Your task to perform on an android device: allow cookies in the chrome app Image 0: 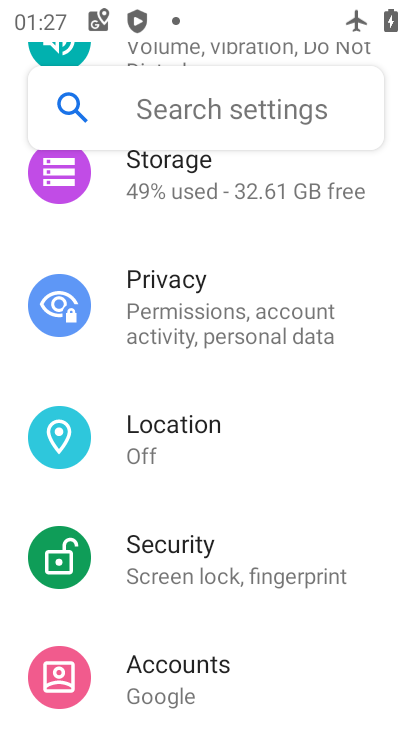
Step 0: press home button
Your task to perform on an android device: allow cookies in the chrome app Image 1: 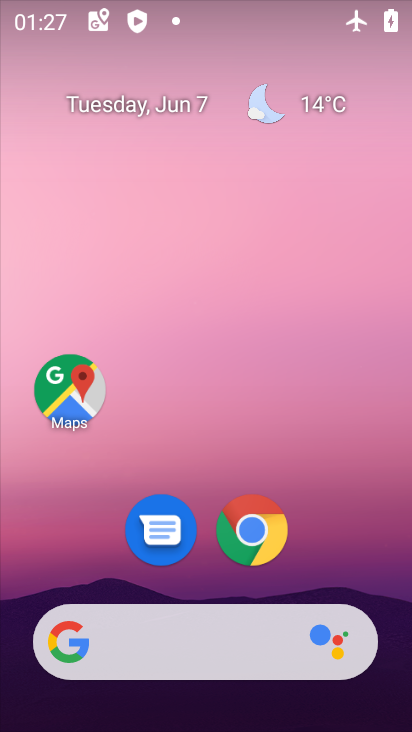
Step 1: click (262, 529)
Your task to perform on an android device: allow cookies in the chrome app Image 2: 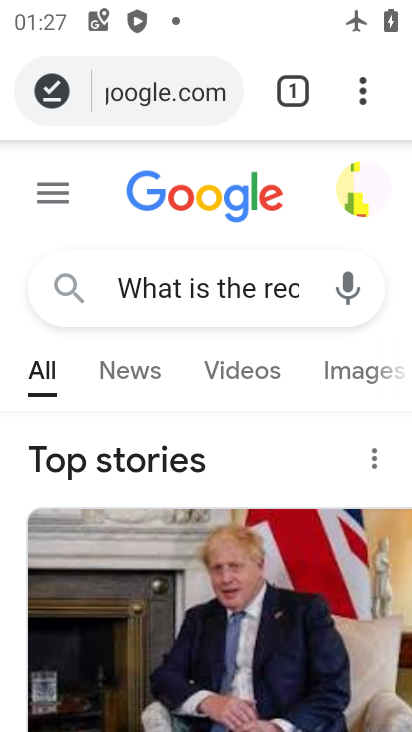
Step 2: click (354, 87)
Your task to perform on an android device: allow cookies in the chrome app Image 3: 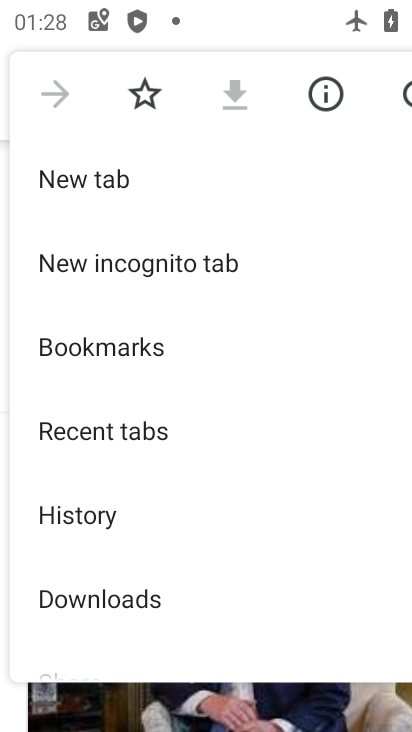
Step 3: drag from (225, 647) to (226, 292)
Your task to perform on an android device: allow cookies in the chrome app Image 4: 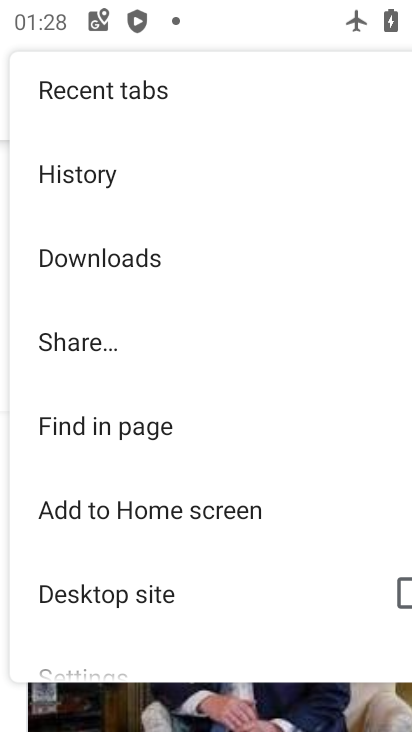
Step 4: drag from (139, 562) to (163, 257)
Your task to perform on an android device: allow cookies in the chrome app Image 5: 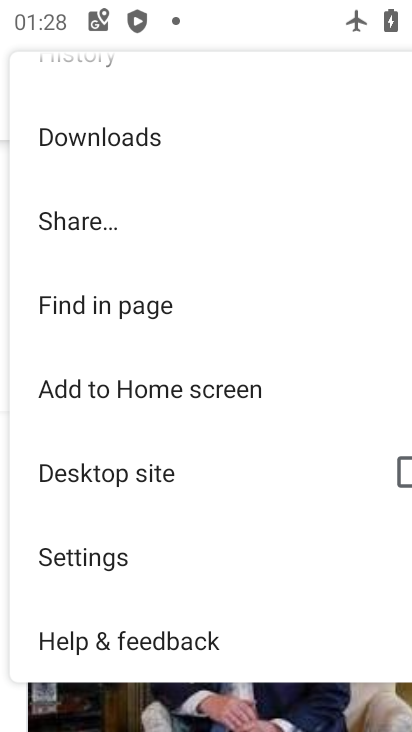
Step 5: click (117, 551)
Your task to perform on an android device: allow cookies in the chrome app Image 6: 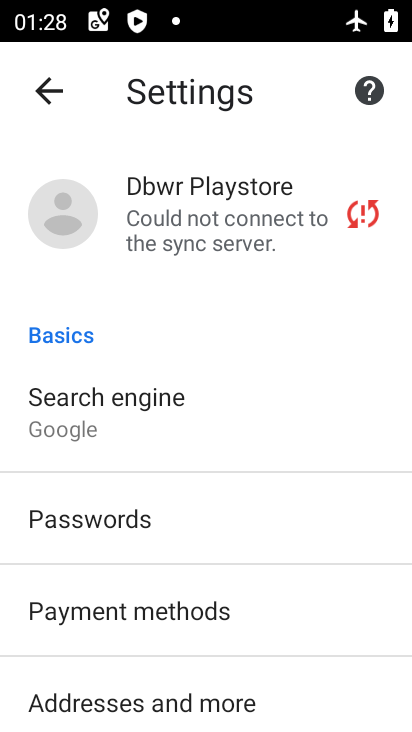
Step 6: drag from (205, 635) to (185, 308)
Your task to perform on an android device: allow cookies in the chrome app Image 7: 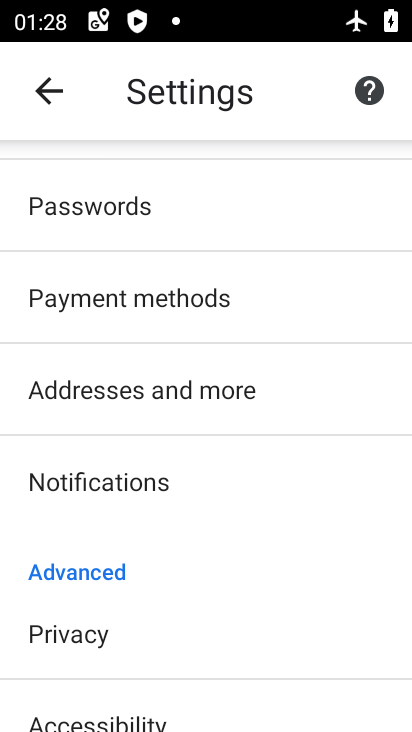
Step 7: drag from (119, 553) to (138, 262)
Your task to perform on an android device: allow cookies in the chrome app Image 8: 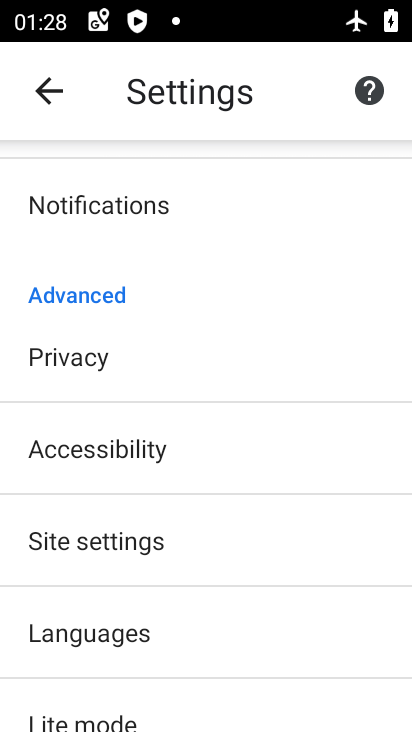
Step 8: click (153, 564)
Your task to perform on an android device: allow cookies in the chrome app Image 9: 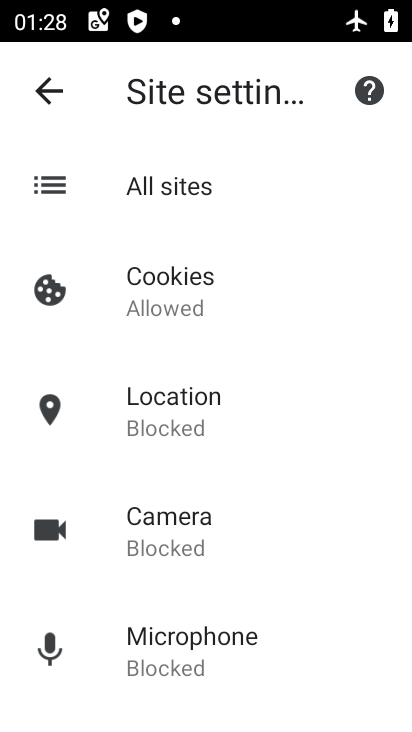
Step 9: drag from (251, 630) to (249, 348)
Your task to perform on an android device: allow cookies in the chrome app Image 10: 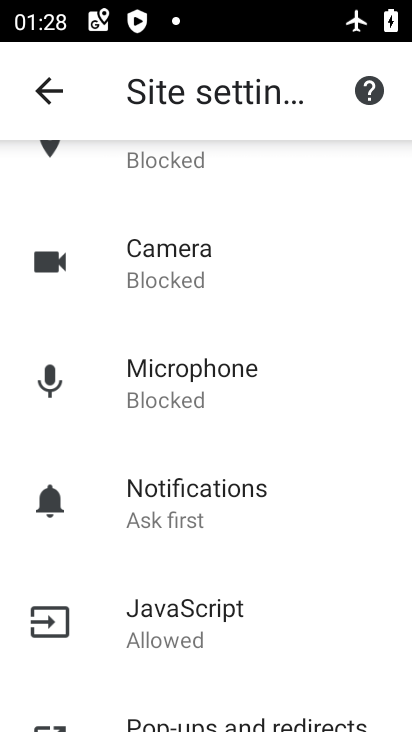
Step 10: drag from (164, 198) to (183, 489)
Your task to perform on an android device: allow cookies in the chrome app Image 11: 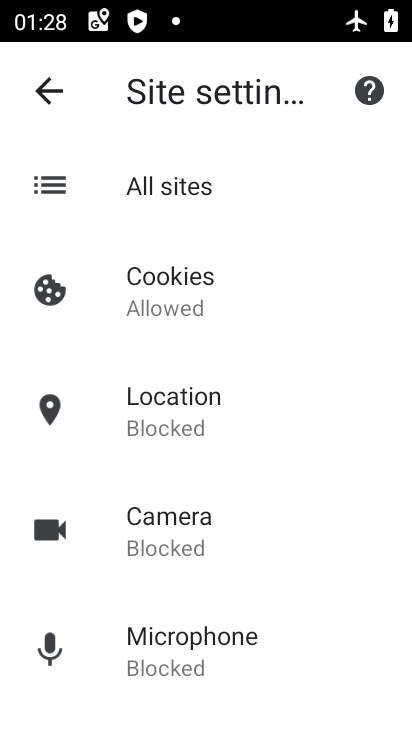
Step 11: click (169, 280)
Your task to perform on an android device: allow cookies in the chrome app Image 12: 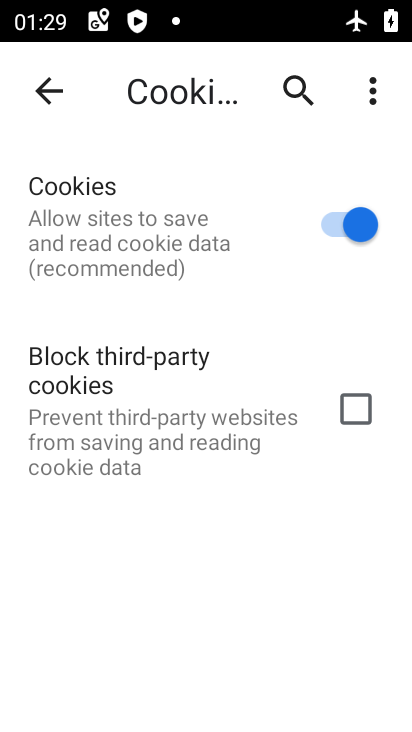
Step 12: task complete